Your task to perform on an android device: Open Amazon Image 0: 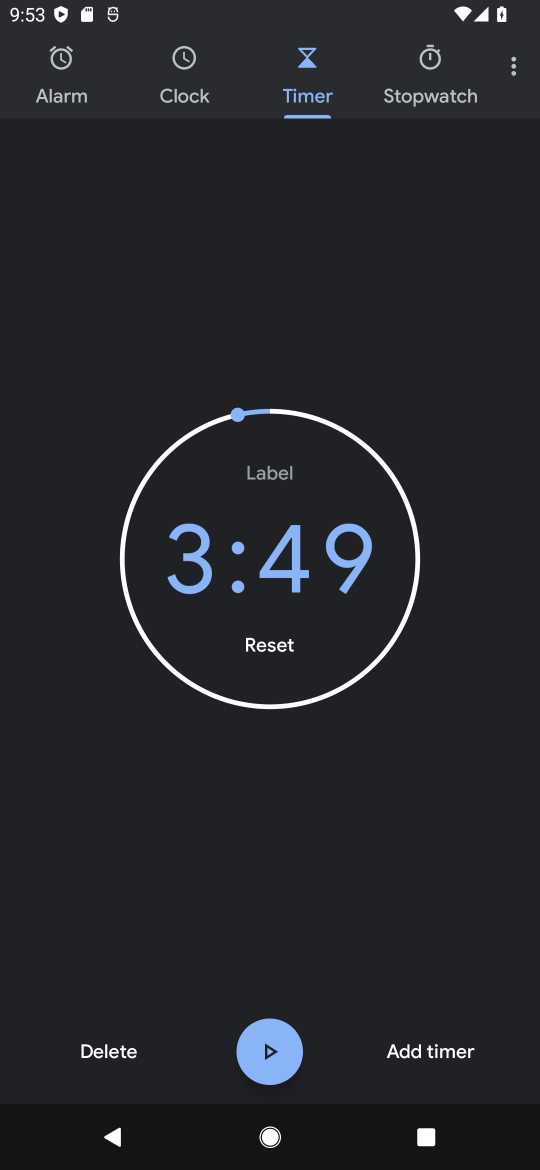
Step 0: press home button
Your task to perform on an android device: Open Amazon Image 1: 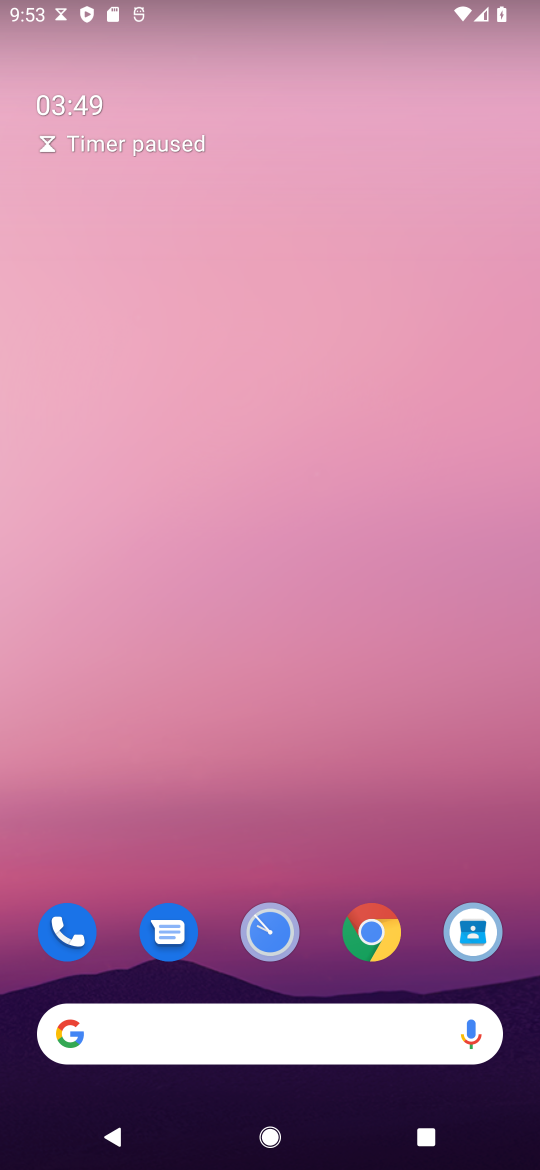
Step 1: click (373, 931)
Your task to perform on an android device: Open Amazon Image 2: 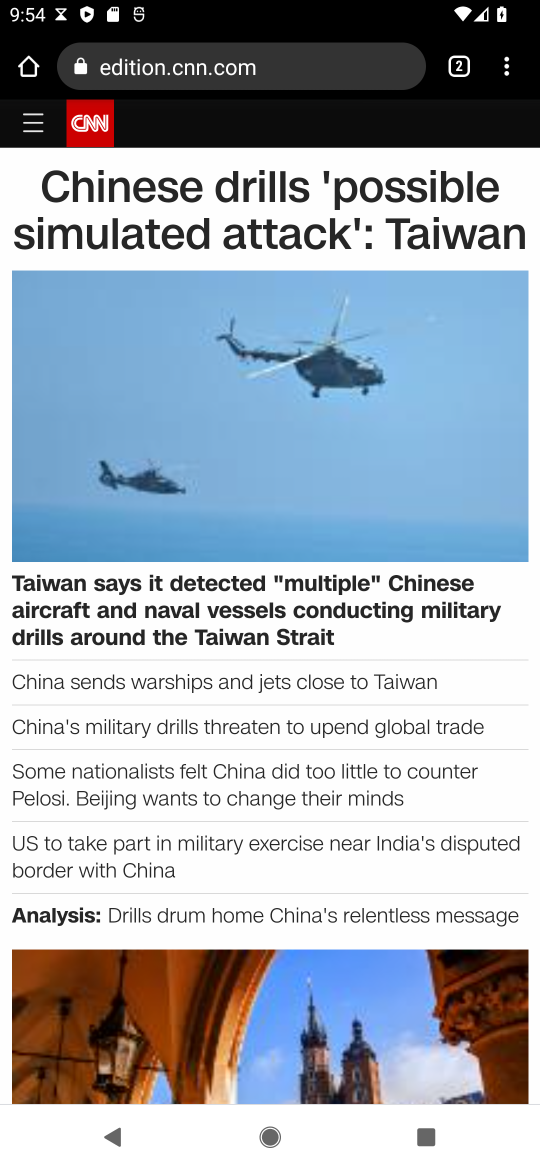
Step 2: click (328, 76)
Your task to perform on an android device: Open Amazon Image 3: 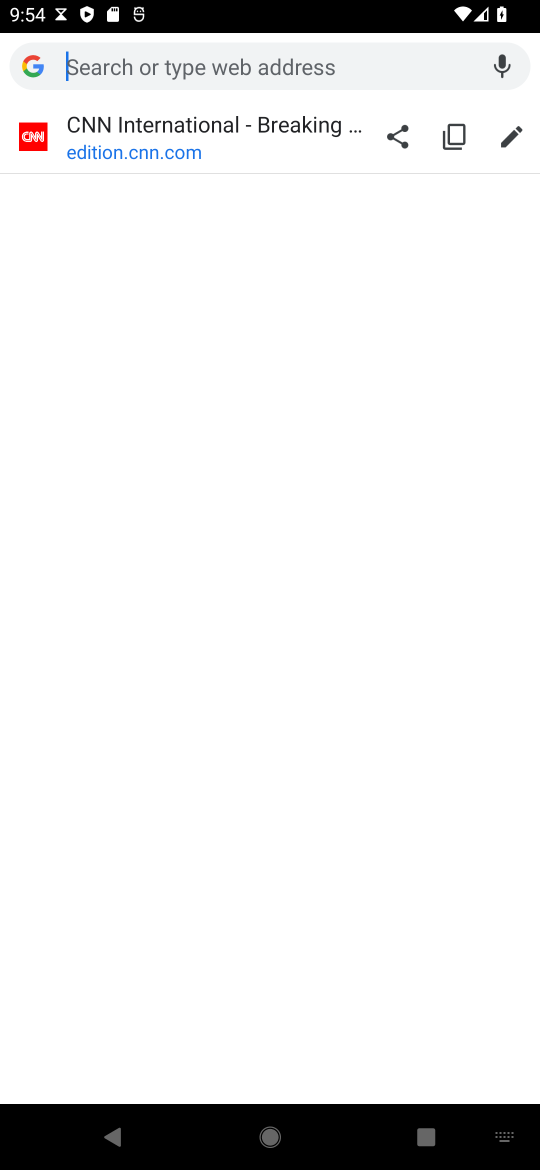
Step 3: type "Amazon"
Your task to perform on an android device: Open Amazon Image 4: 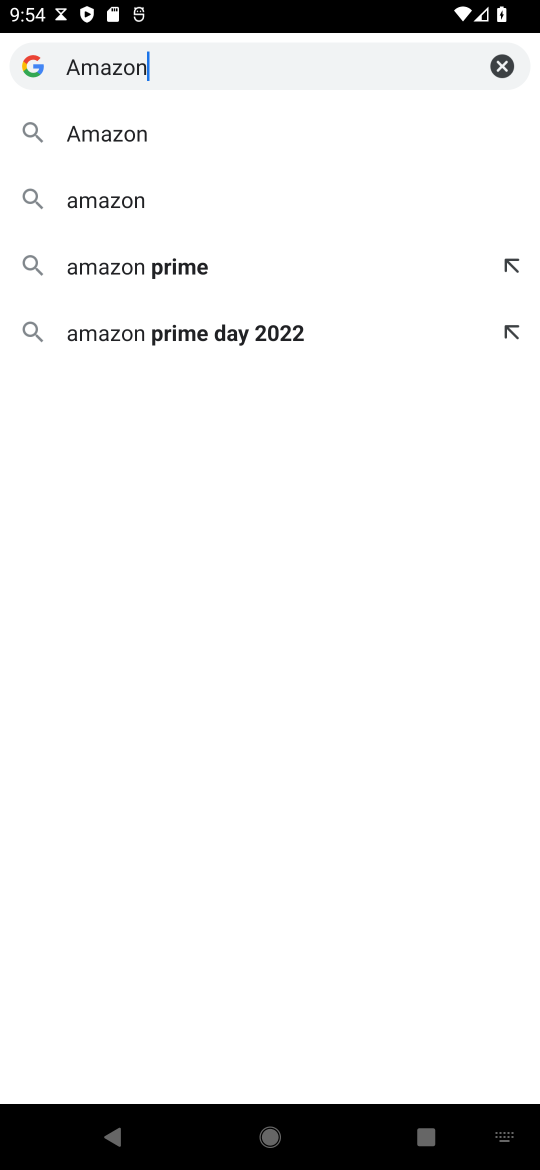
Step 4: click (120, 137)
Your task to perform on an android device: Open Amazon Image 5: 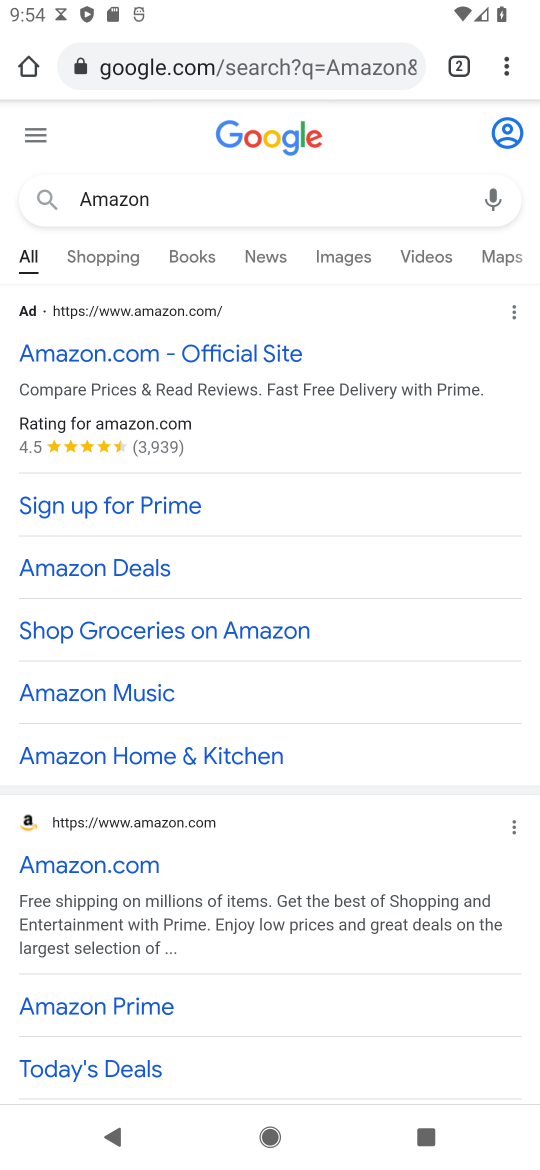
Step 5: click (106, 868)
Your task to perform on an android device: Open Amazon Image 6: 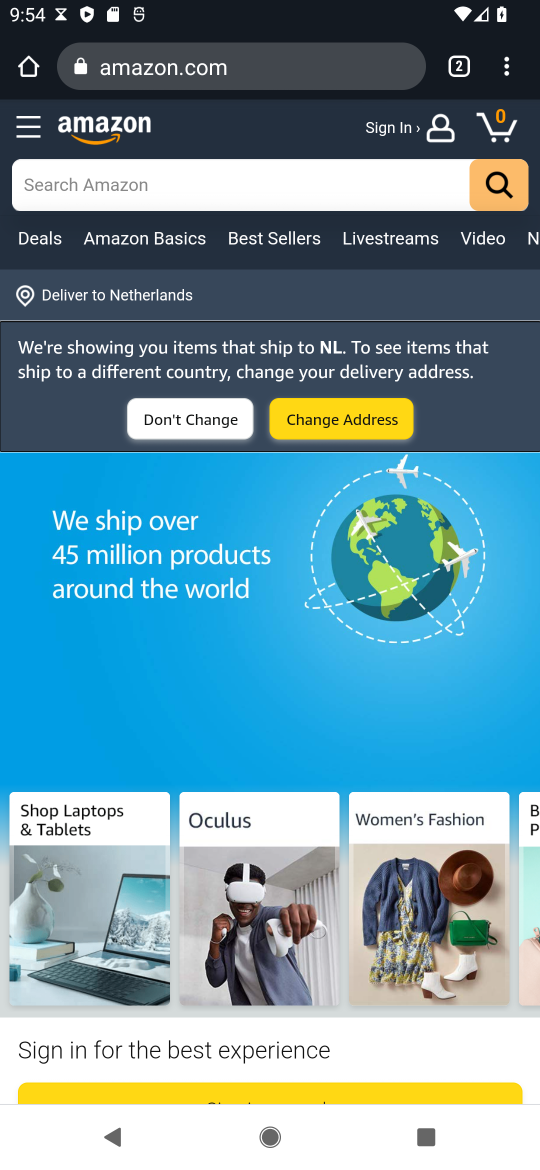
Step 6: task complete